Your task to perform on an android device: check out phone information Image 0: 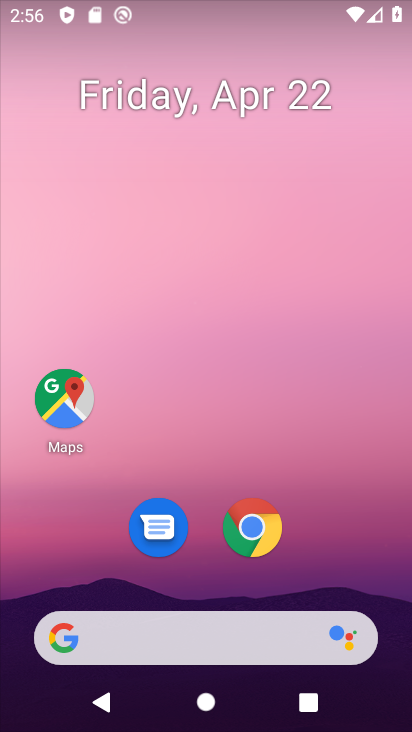
Step 0: drag from (346, 541) to (291, 51)
Your task to perform on an android device: check out phone information Image 1: 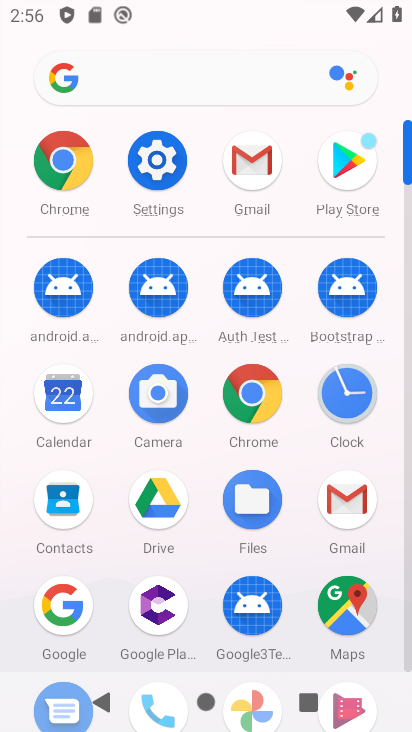
Step 1: click (161, 174)
Your task to perform on an android device: check out phone information Image 2: 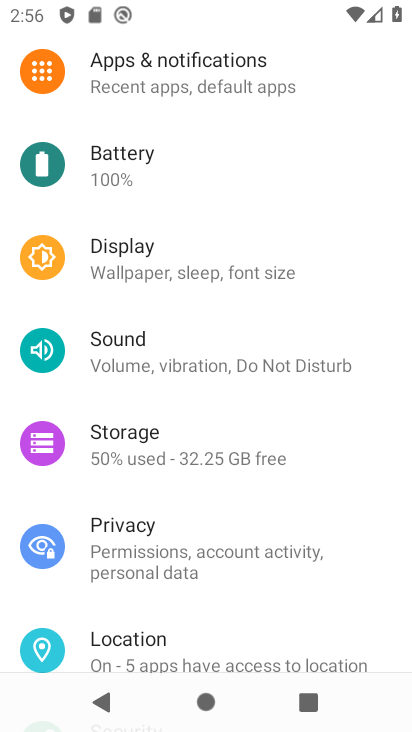
Step 2: drag from (193, 601) to (288, 86)
Your task to perform on an android device: check out phone information Image 3: 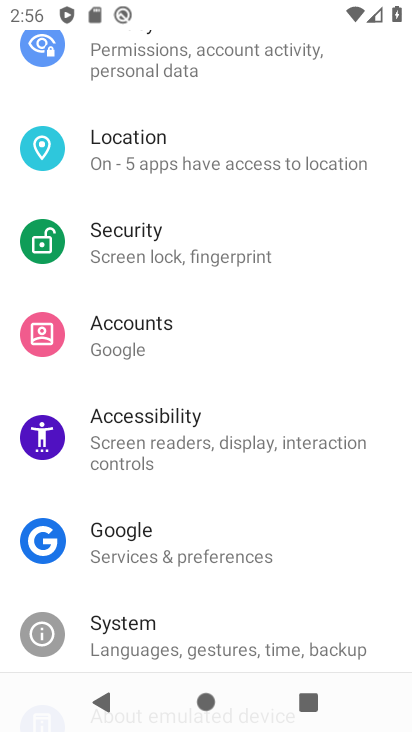
Step 3: drag from (223, 619) to (275, 142)
Your task to perform on an android device: check out phone information Image 4: 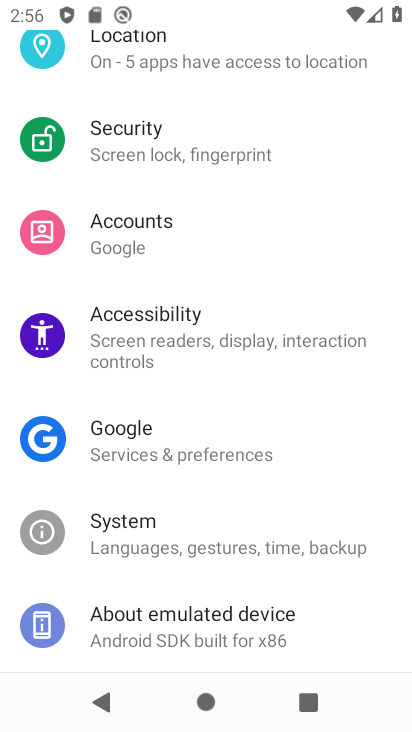
Step 4: click (174, 620)
Your task to perform on an android device: check out phone information Image 5: 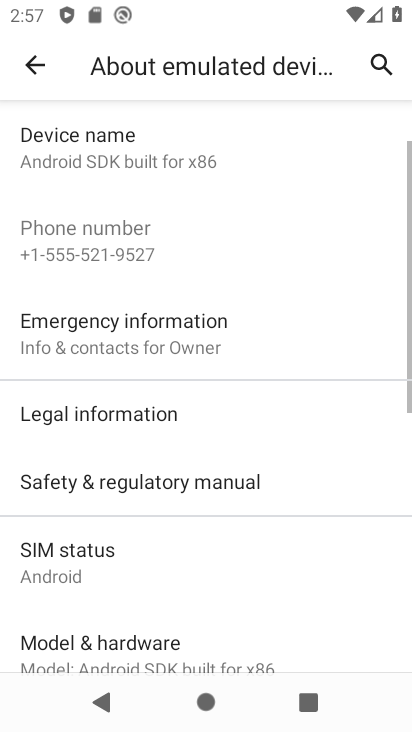
Step 5: task complete